Your task to perform on an android device: Open maps Image 0: 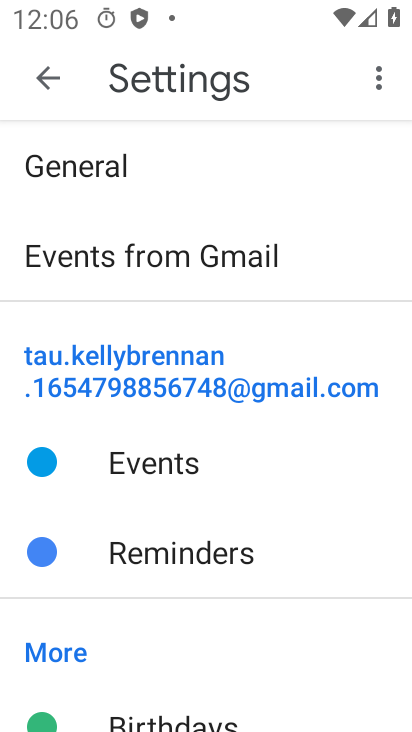
Step 0: press home button
Your task to perform on an android device: Open maps Image 1: 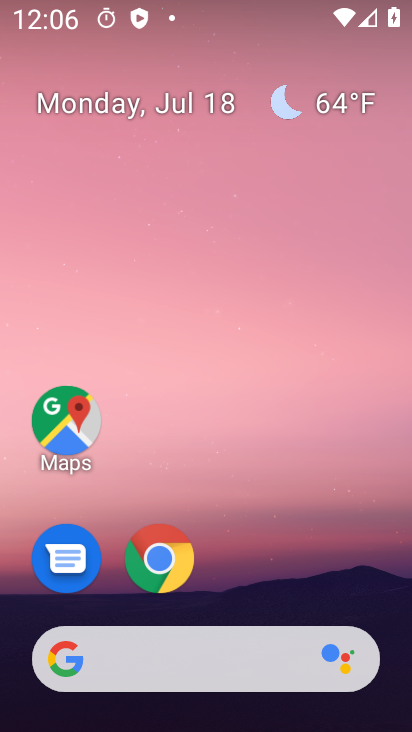
Step 1: drag from (397, 566) to (397, 163)
Your task to perform on an android device: Open maps Image 2: 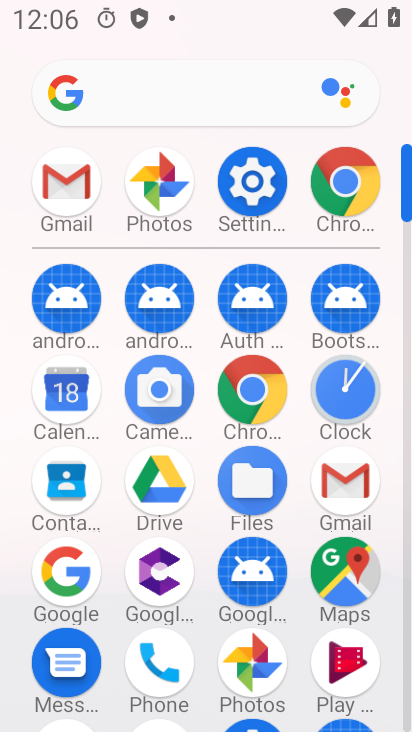
Step 2: drag from (390, 633) to (389, 427)
Your task to perform on an android device: Open maps Image 3: 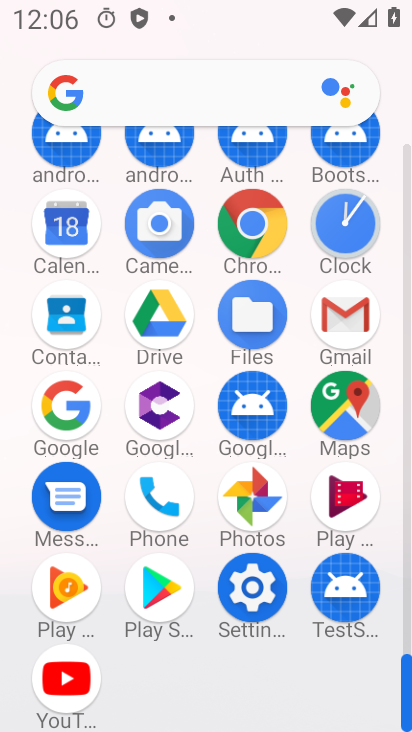
Step 3: click (365, 402)
Your task to perform on an android device: Open maps Image 4: 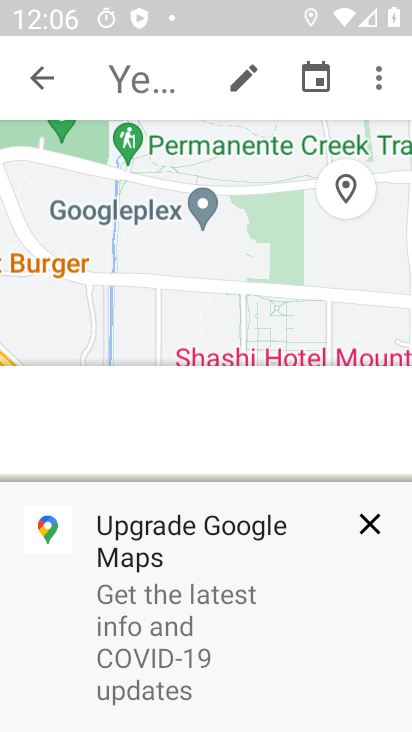
Step 4: task complete